Your task to perform on an android device: Toggle the flashlight Image 0: 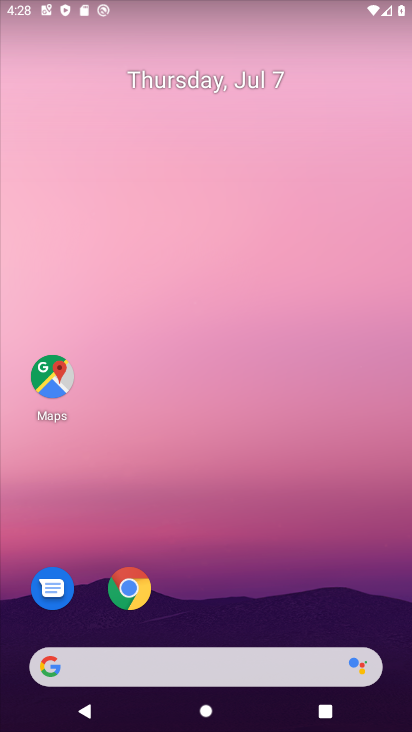
Step 0: drag from (239, 4) to (299, 679)
Your task to perform on an android device: Toggle the flashlight Image 1: 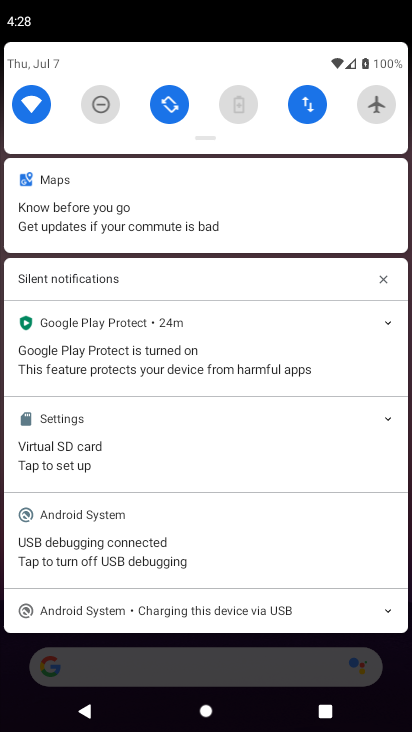
Step 1: task complete